Your task to perform on an android device: uninstall "Google Calendar" Image 0: 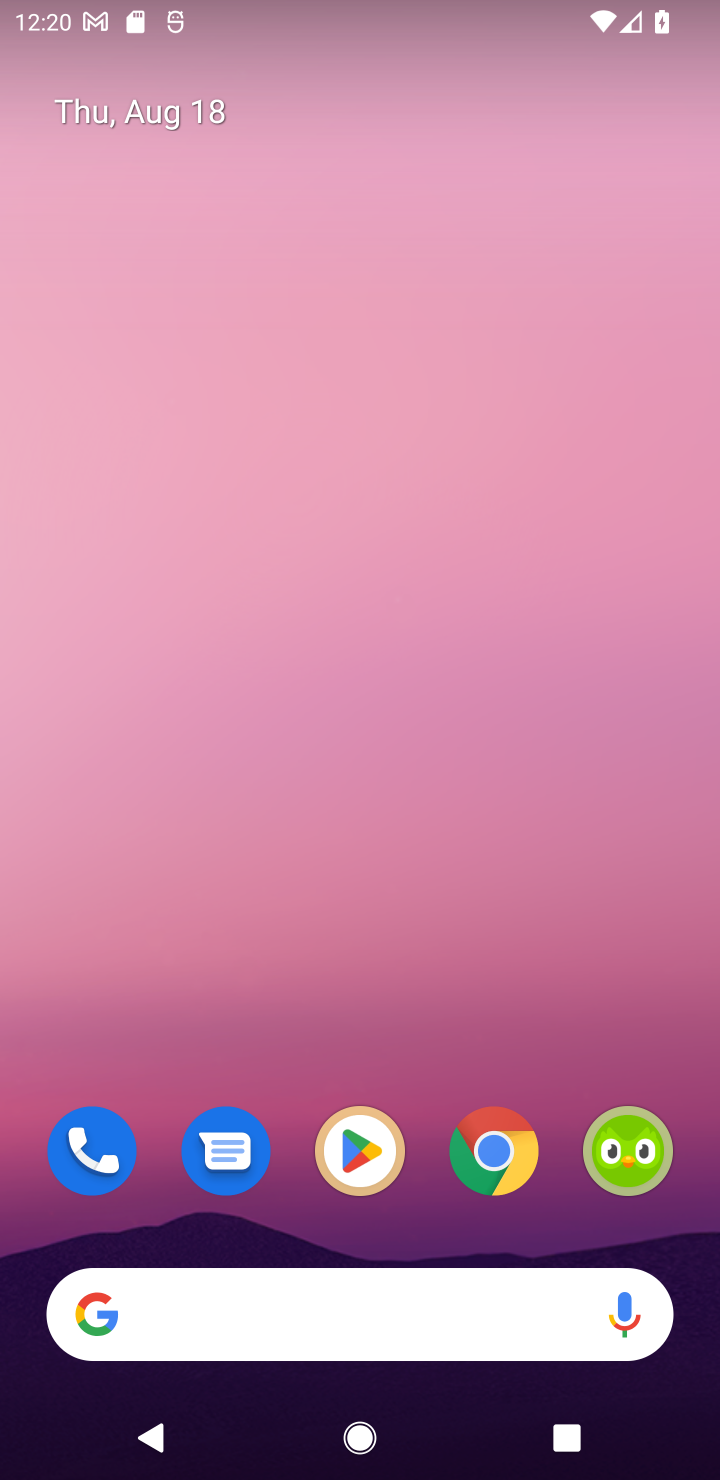
Step 0: click (369, 1167)
Your task to perform on an android device: uninstall "Google Calendar" Image 1: 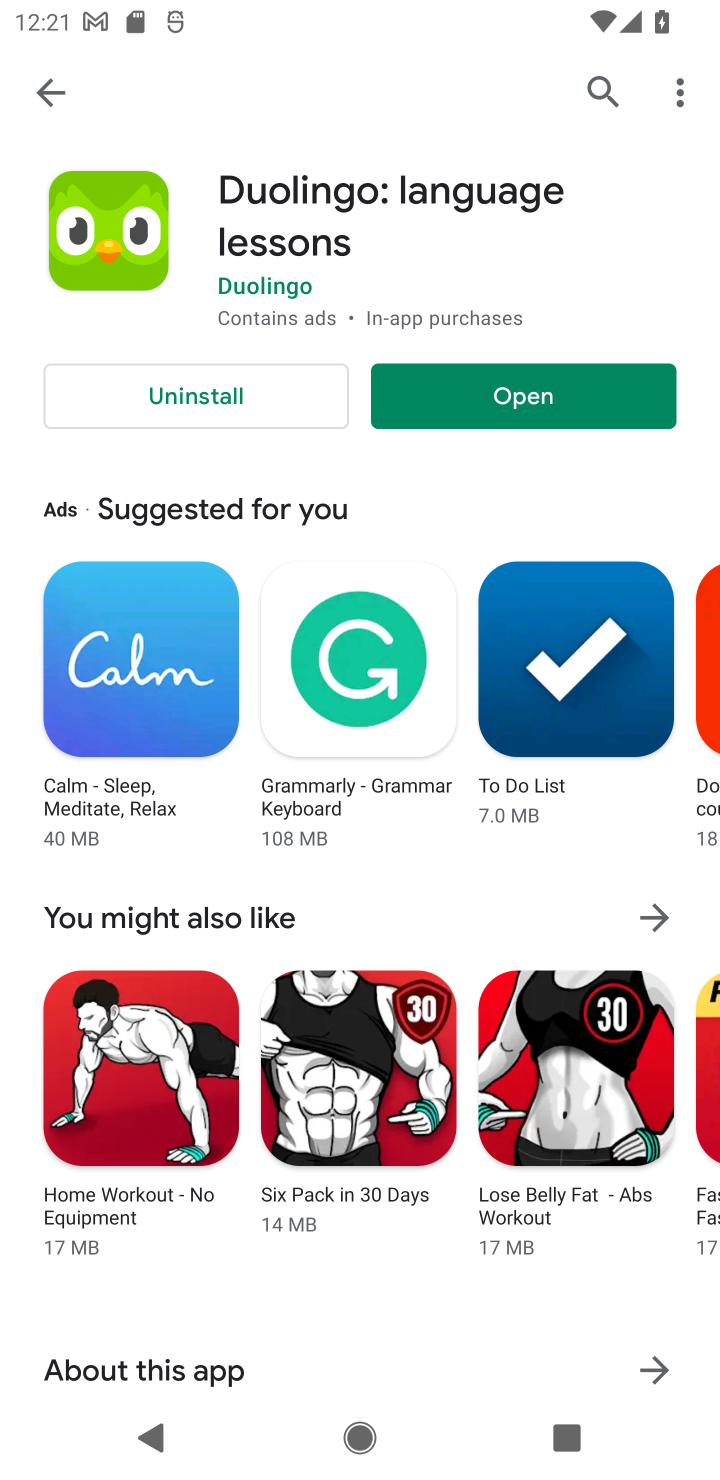
Step 1: click (45, 114)
Your task to perform on an android device: uninstall "Google Calendar" Image 2: 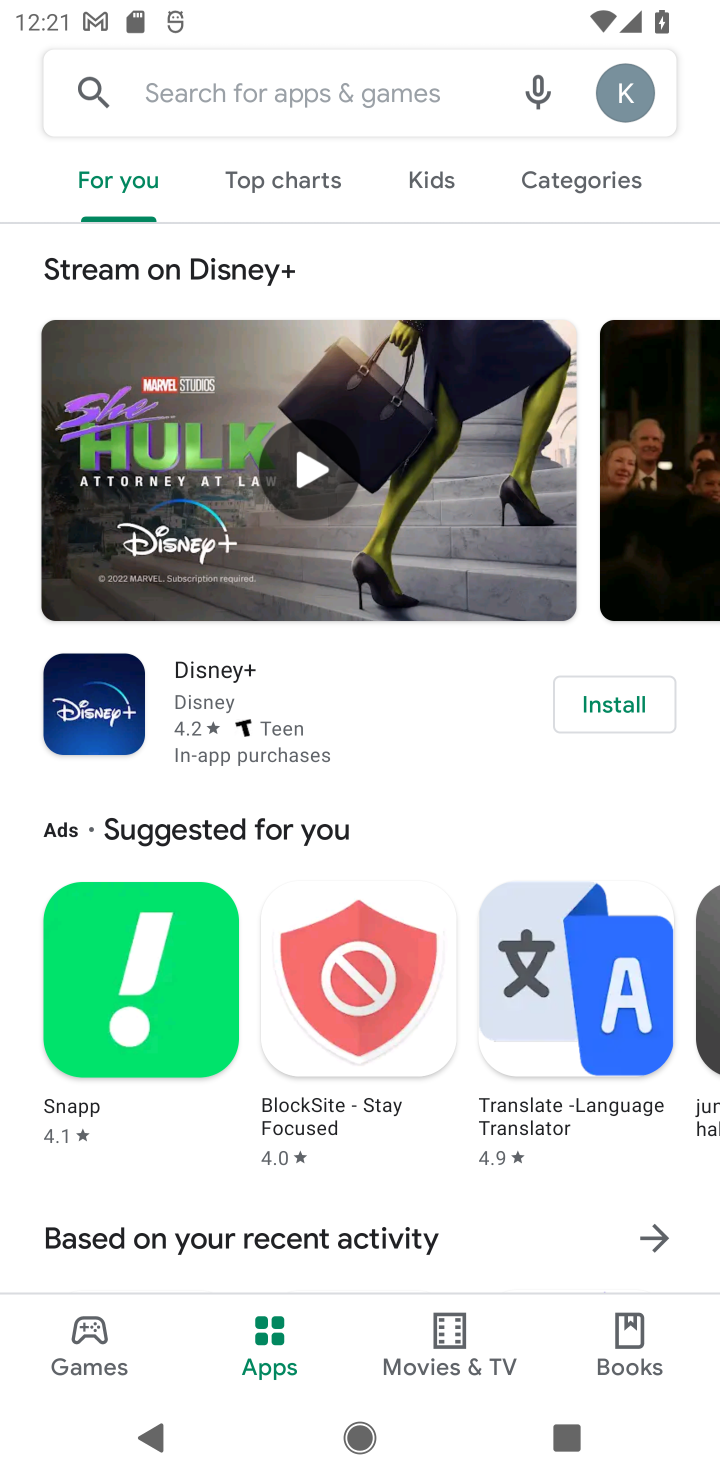
Step 2: click (293, 83)
Your task to perform on an android device: uninstall "Google Calendar" Image 3: 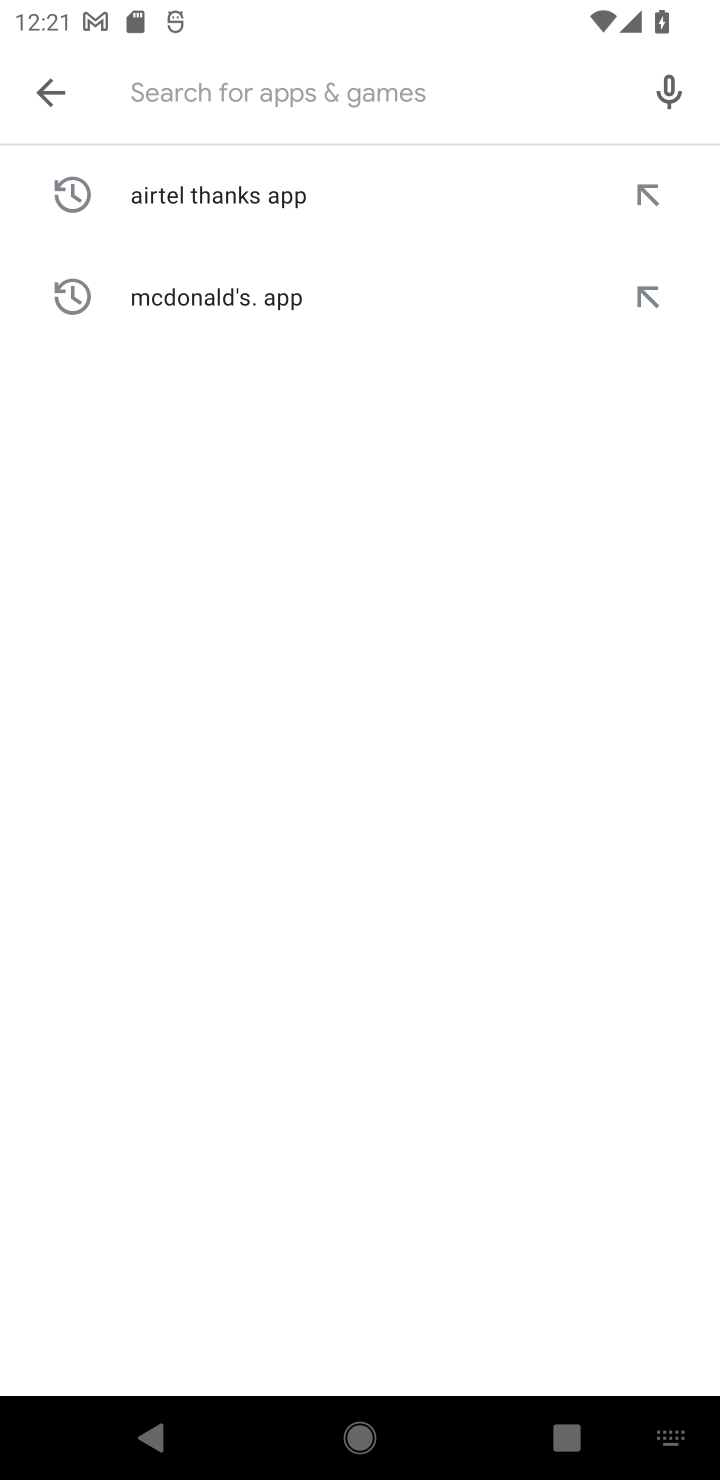
Step 3: type "Google Calendar"
Your task to perform on an android device: uninstall "Google Calendar" Image 4: 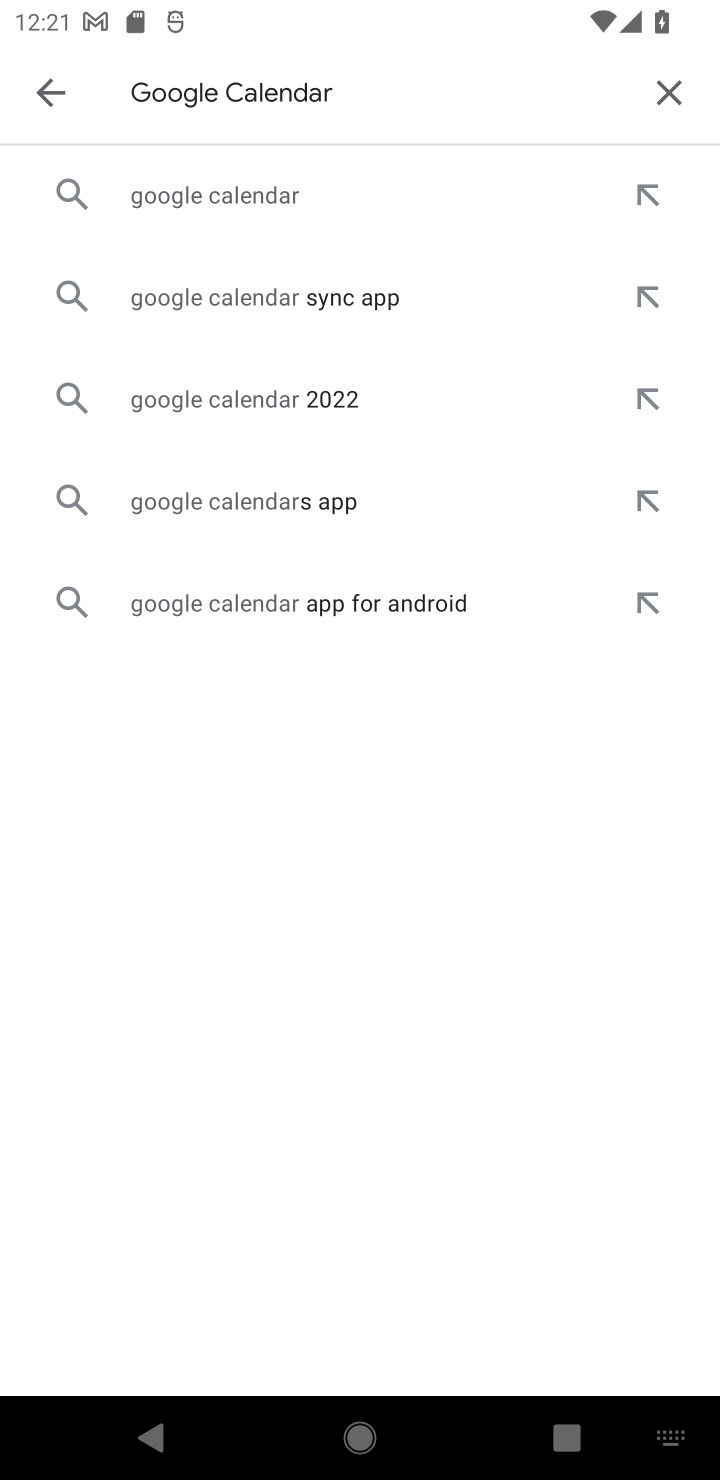
Step 4: click (148, 184)
Your task to perform on an android device: uninstall "Google Calendar" Image 5: 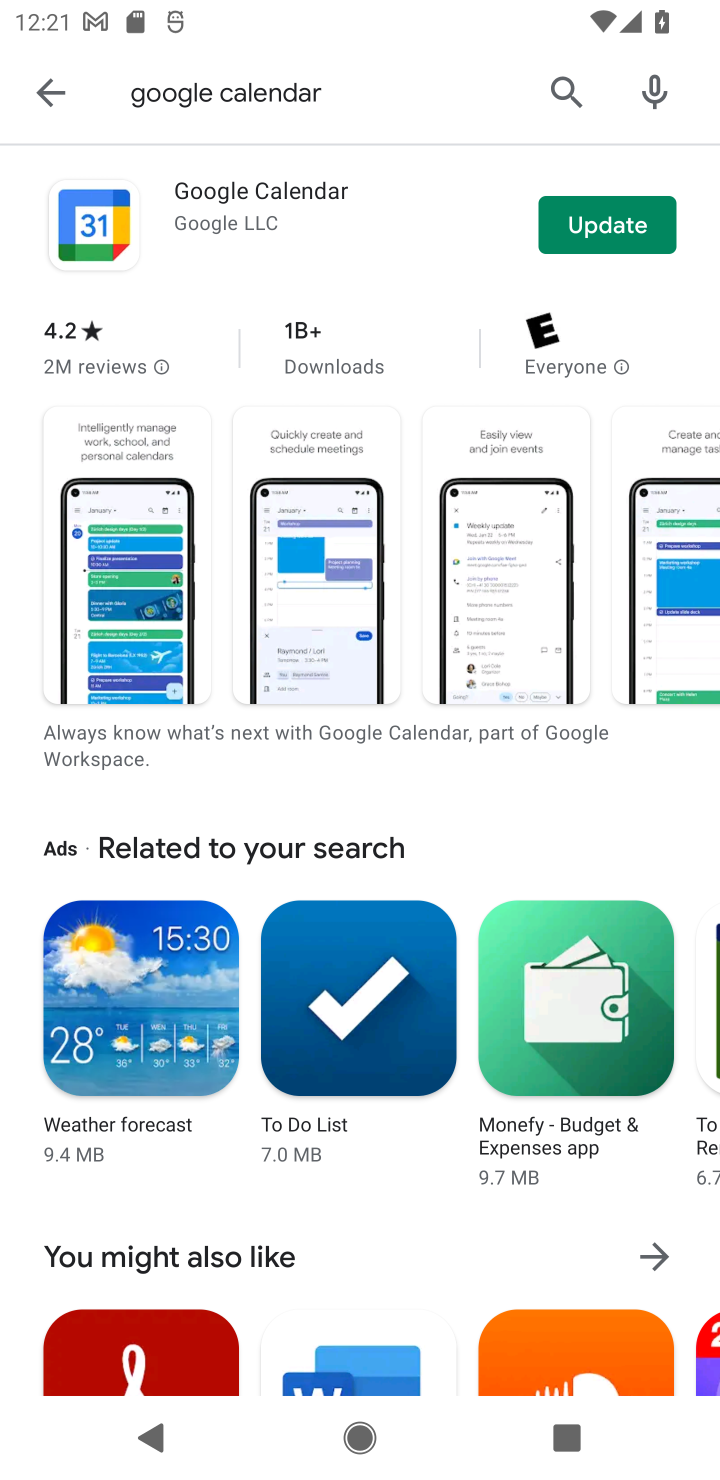
Step 5: click (203, 200)
Your task to perform on an android device: uninstall "Google Calendar" Image 6: 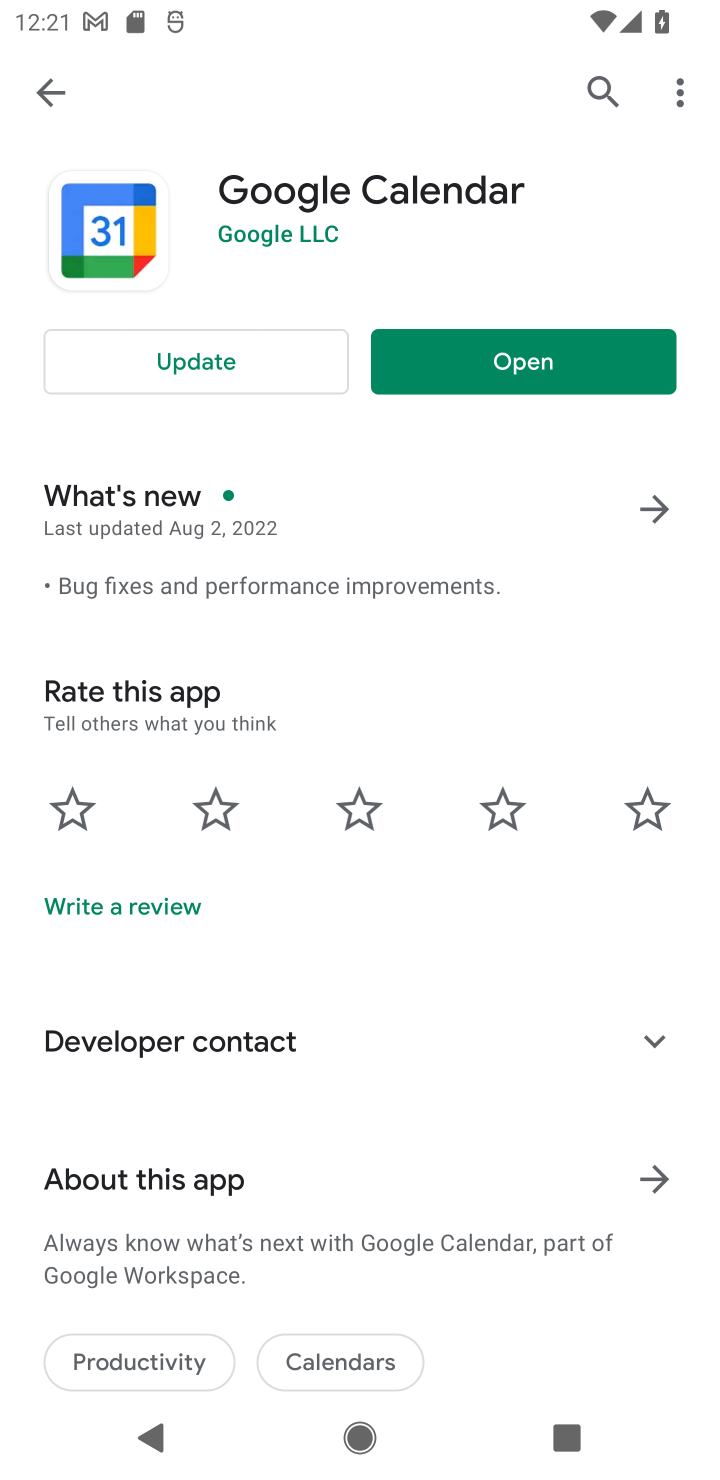
Step 6: click (181, 359)
Your task to perform on an android device: uninstall "Google Calendar" Image 7: 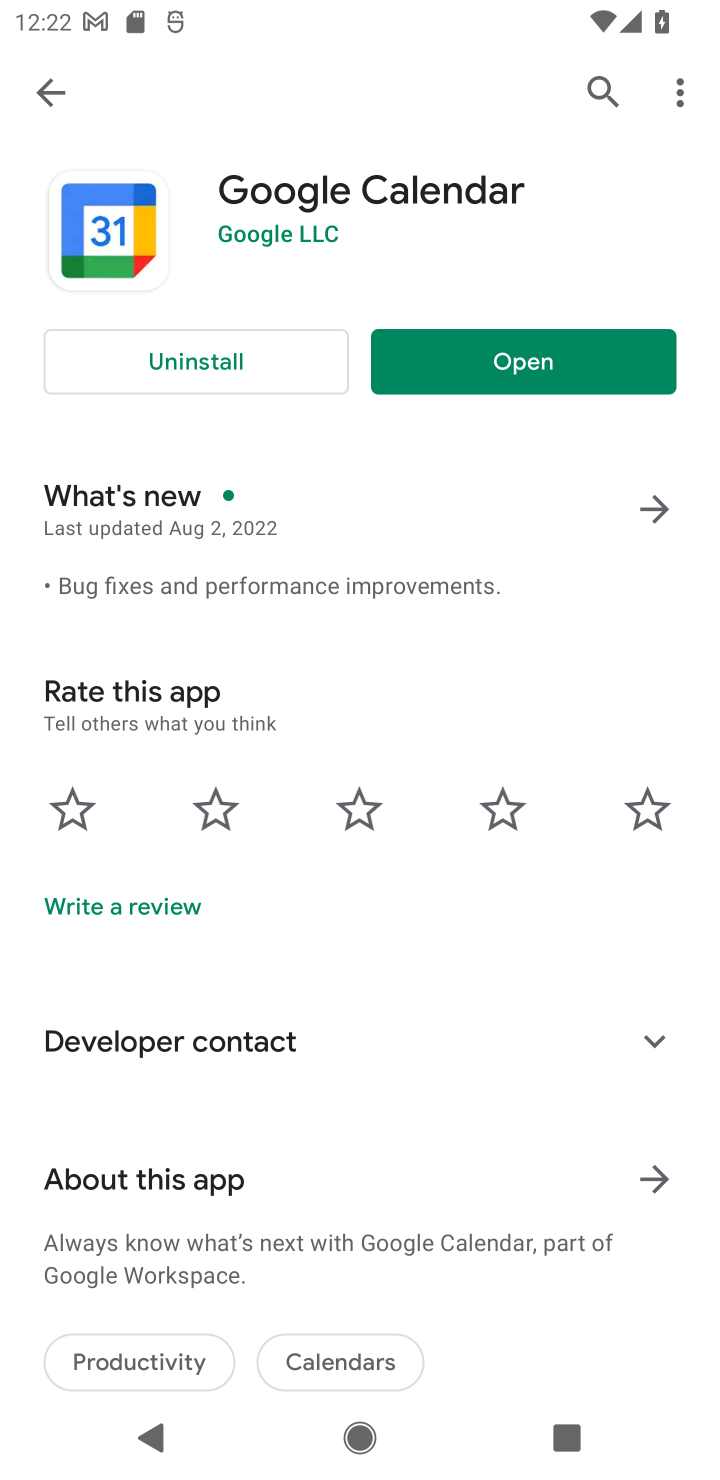
Step 7: click (197, 359)
Your task to perform on an android device: uninstall "Google Calendar" Image 8: 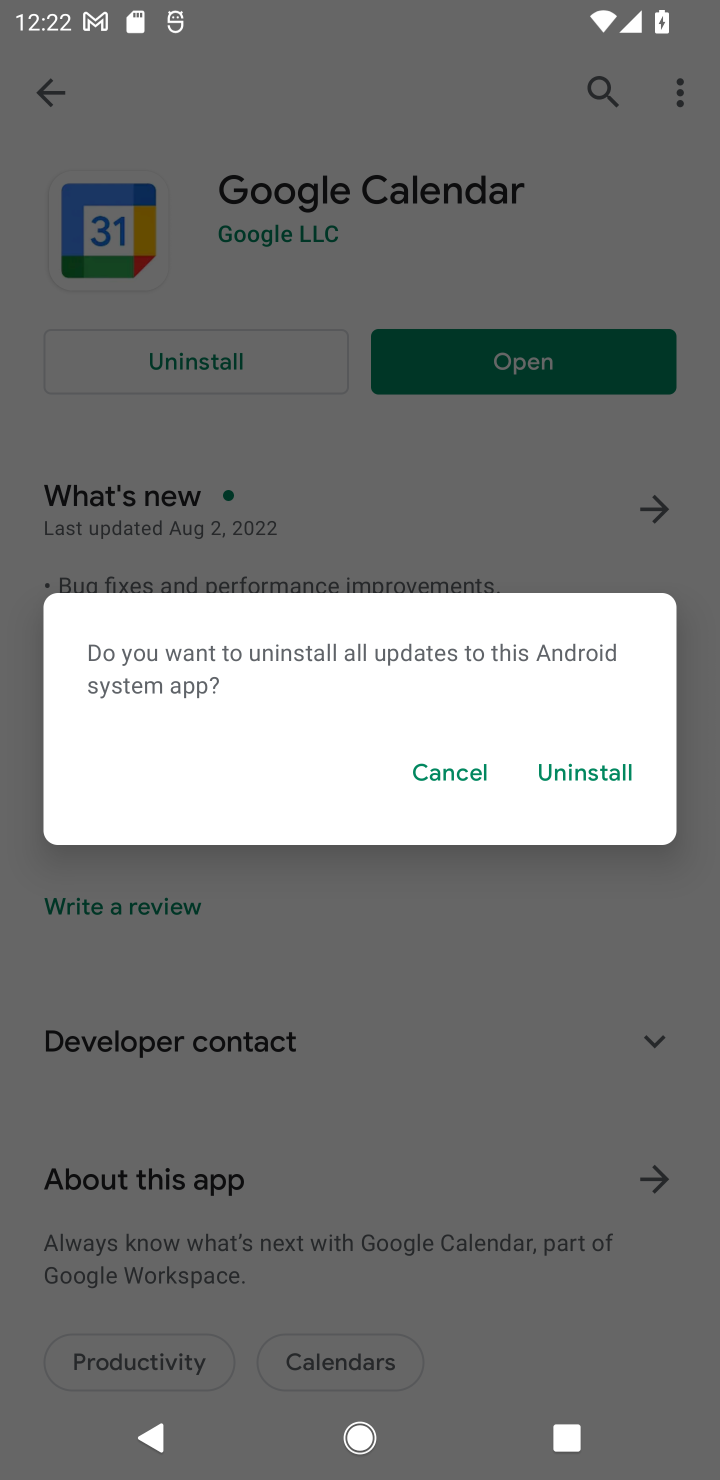
Step 8: click (569, 773)
Your task to perform on an android device: uninstall "Google Calendar" Image 9: 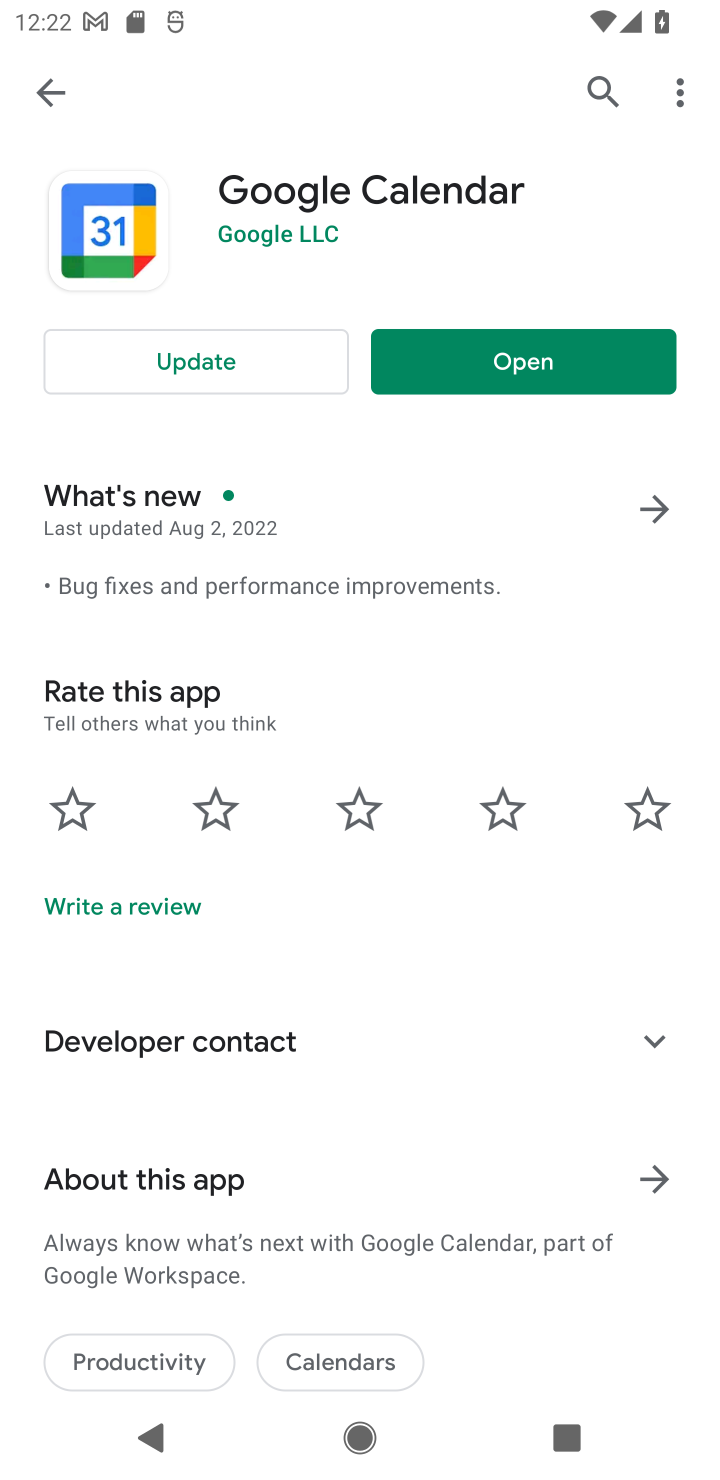
Step 9: click (489, 350)
Your task to perform on an android device: uninstall "Google Calendar" Image 10: 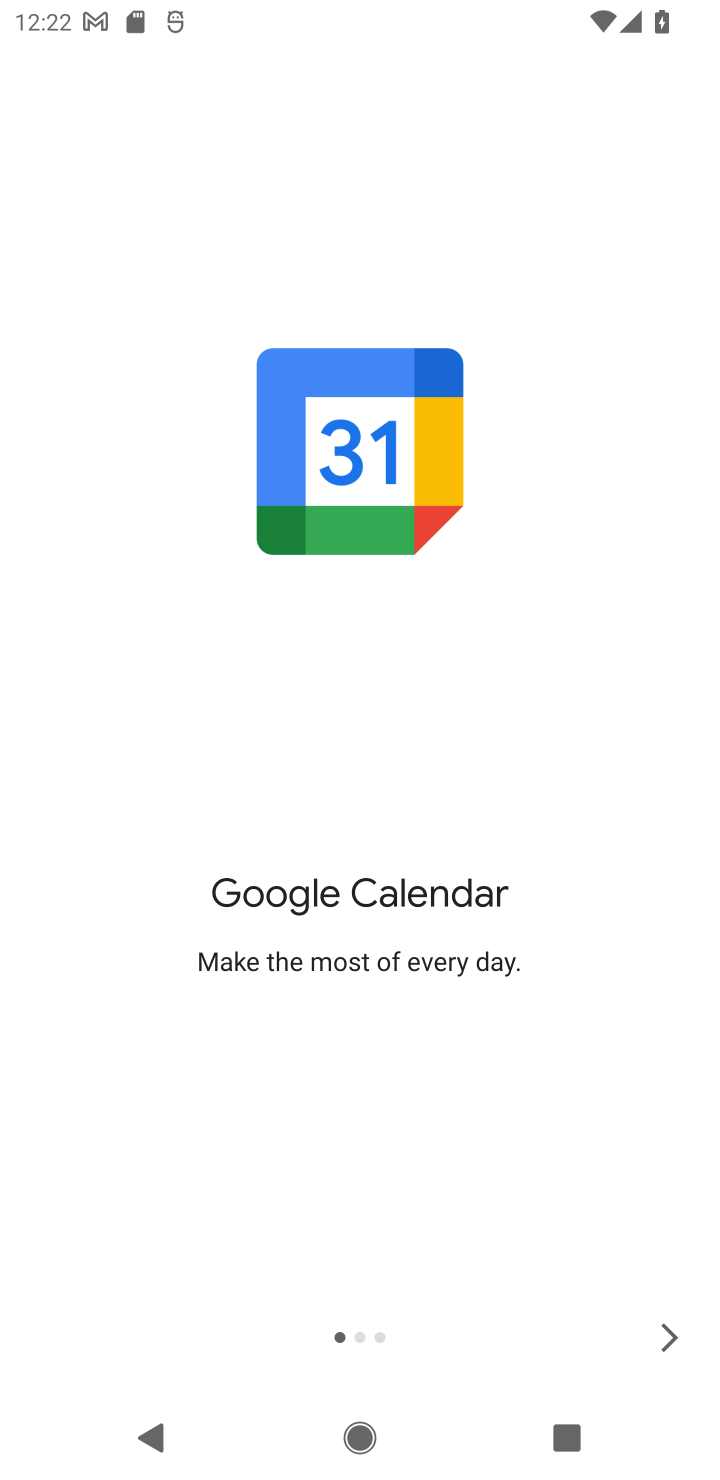
Step 10: press back button
Your task to perform on an android device: uninstall "Google Calendar" Image 11: 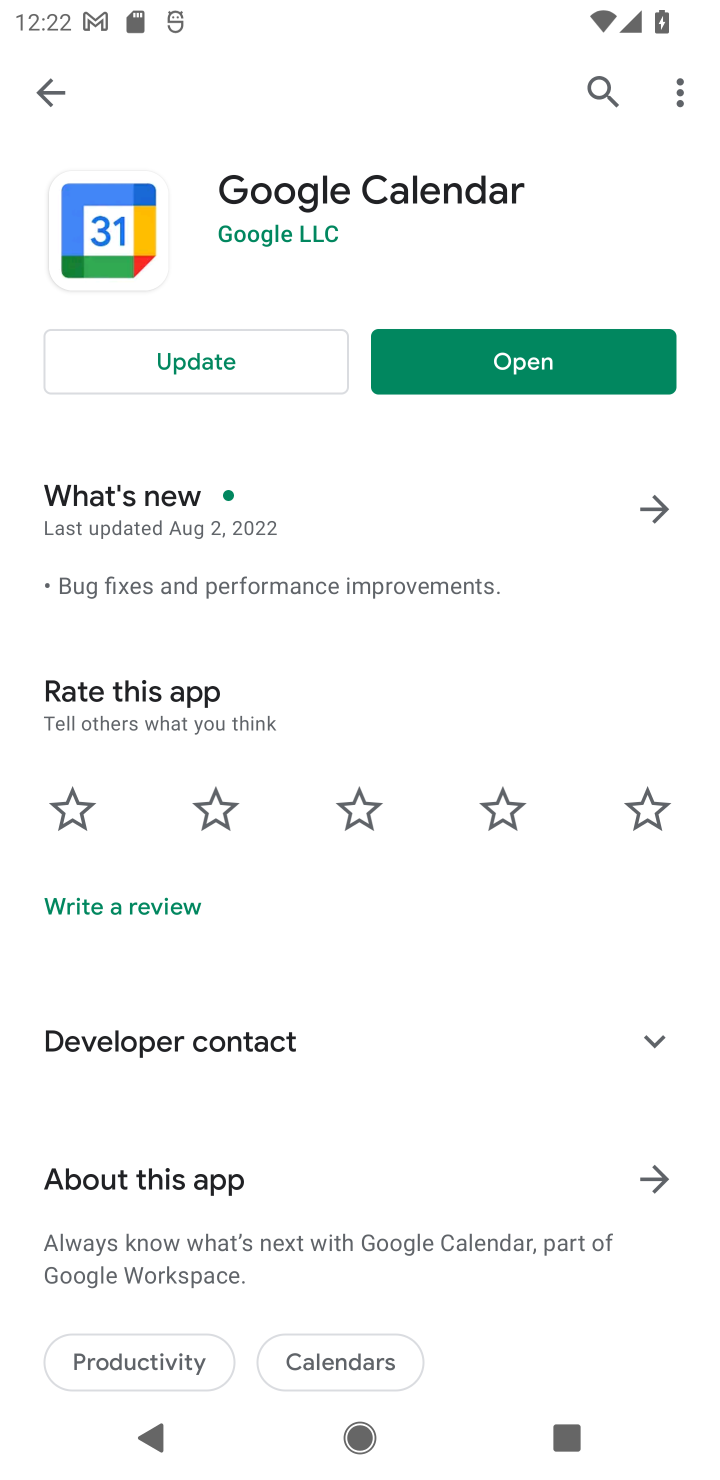
Step 11: click (164, 365)
Your task to perform on an android device: uninstall "Google Calendar" Image 12: 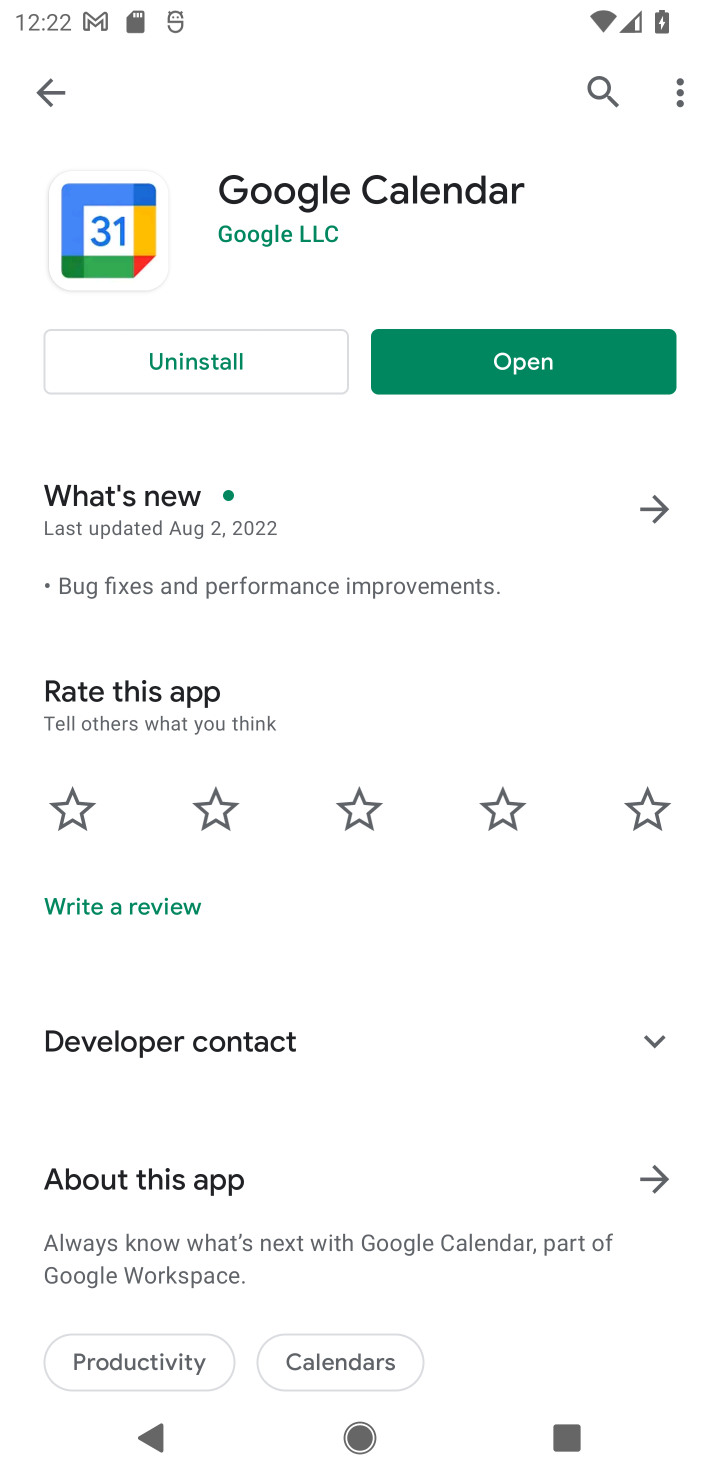
Step 12: click (164, 365)
Your task to perform on an android device: uninstall "Google Calendar" Image 13: 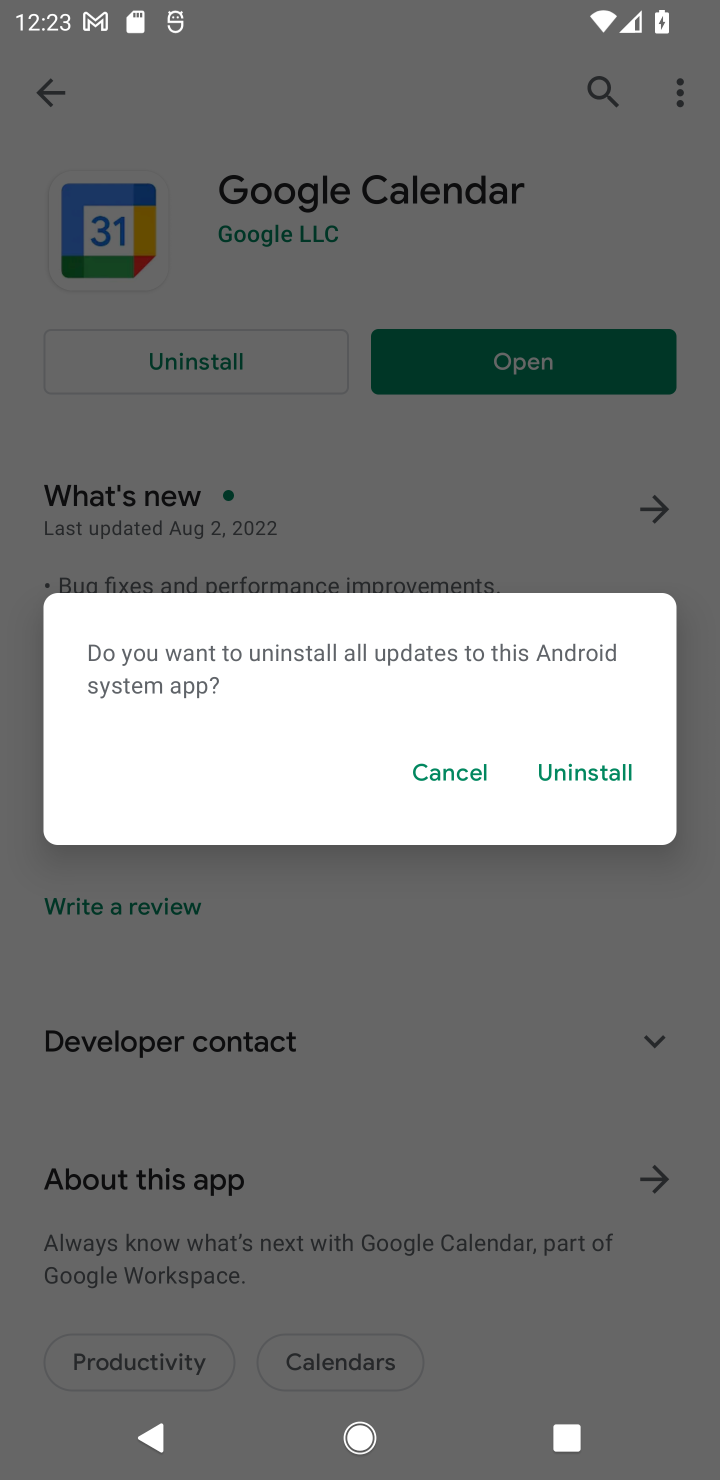
Step 13: click (566, 777)
Your task to perform on an android device: uninstall "Google Calendar" Image 14: 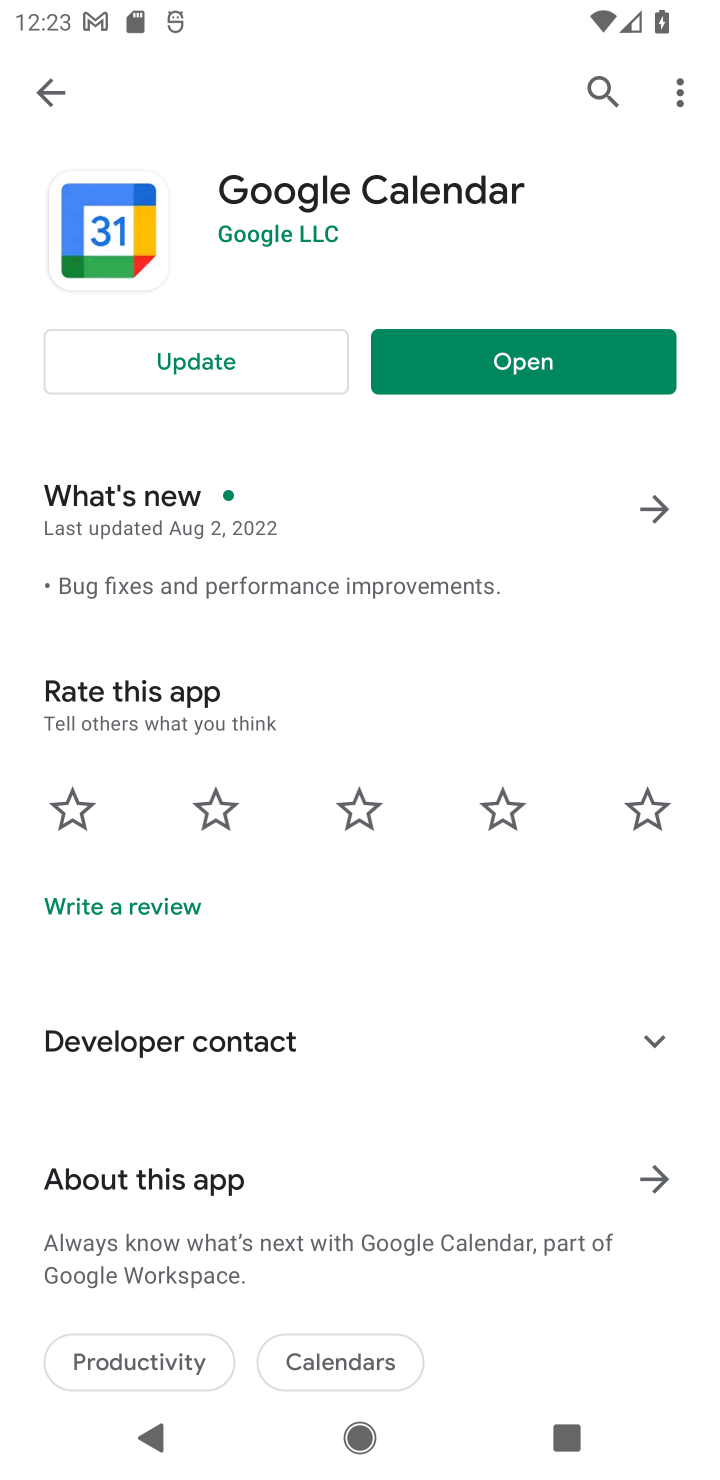
Step 14: task complete